Your task to perform on an android device: open the mobile data screen to see how much data has been used Image 0: 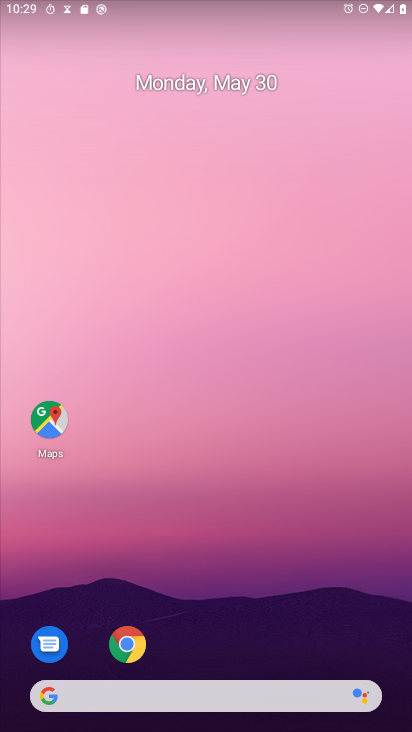
Step 0: drag from (199, 639) to (312, 67)
Your task to perform on an android device: open the mobile data screen to see how much data has been used Image 1: 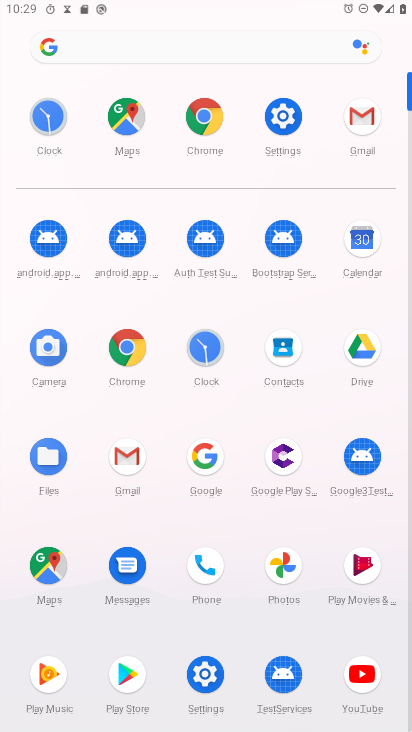
Step 1: click (286, 114)
Your task to perform on an android device: open the mobile data screen to see how much data has been used Image 2: 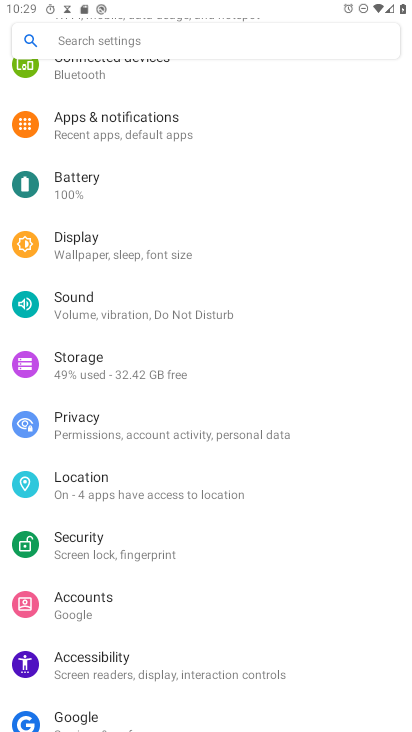
Step 2: drag from (260, 100) to (272, 428)
Your task to perform on an android device: open the mobile data screen to see how much data has been used Image 3: 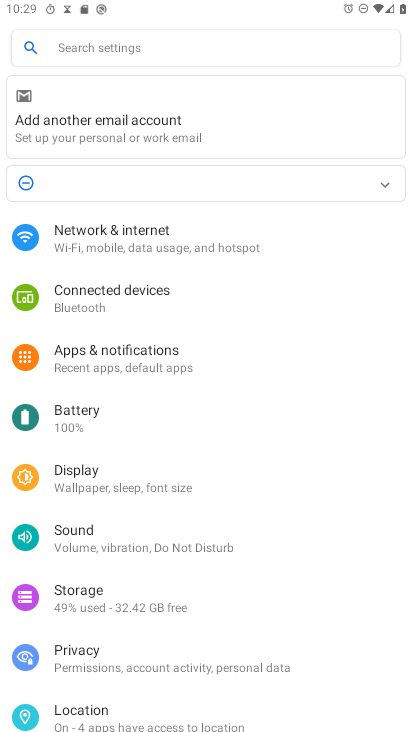
Step 3: click (197, 242)
Your task to perform on an android device: open the mobile data screen to see how much data has been used Image 4: 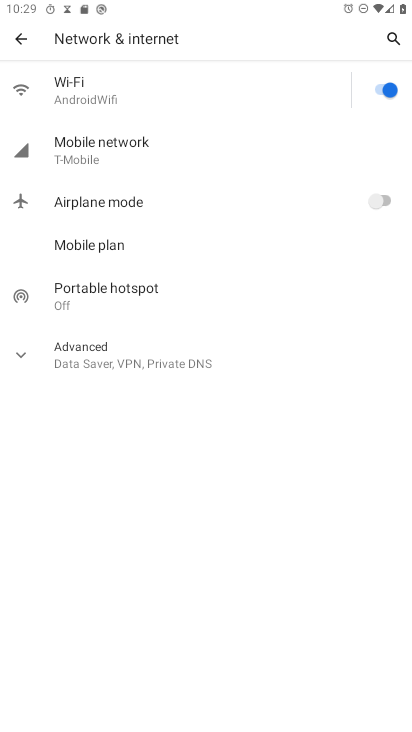
Step 4: click (167, 159)
Your task to perform on an android device: open the mobile data screen to see how much data has been used Image 5: 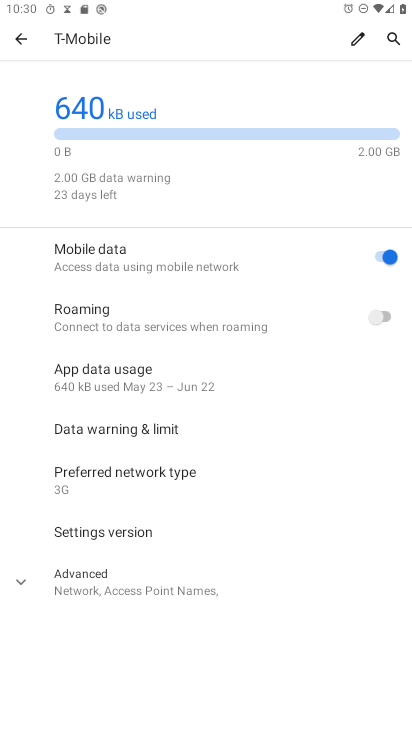
Step 5: task complete